Your task to perform on an android device: Clear all items from cart on costco. Search for "bose soundlink" on costco, select the first entry, and add it to the cart. Image 0: 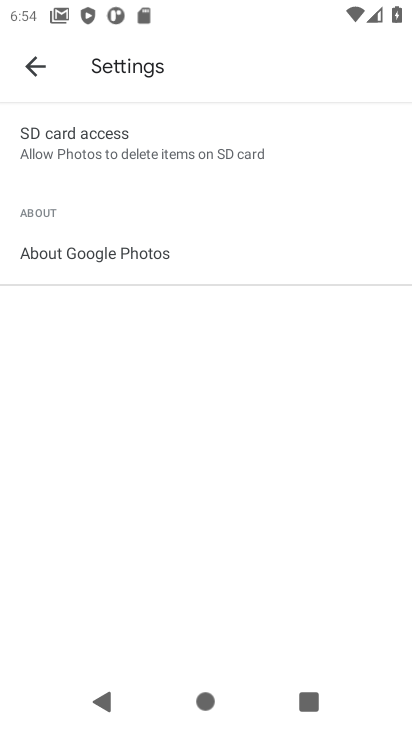
Step 0: press home button
Your task to perform on an android device: Clear all items from cart on costco. Search for "bose soundlink" on costco, select the first entry, and add it to the cart. Image 1: 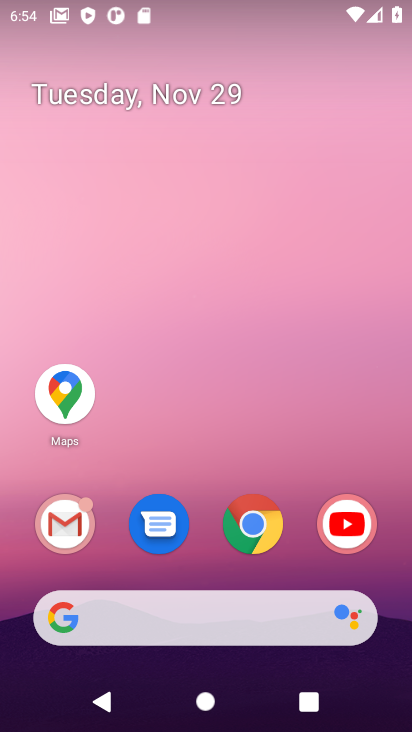
Step 1: click (255, 520)
Your task to perform on an android device: Clear all items from cart on costco. Search for "bose soundlink" on costco, select the first entry, and add it to the cart. Image 2: 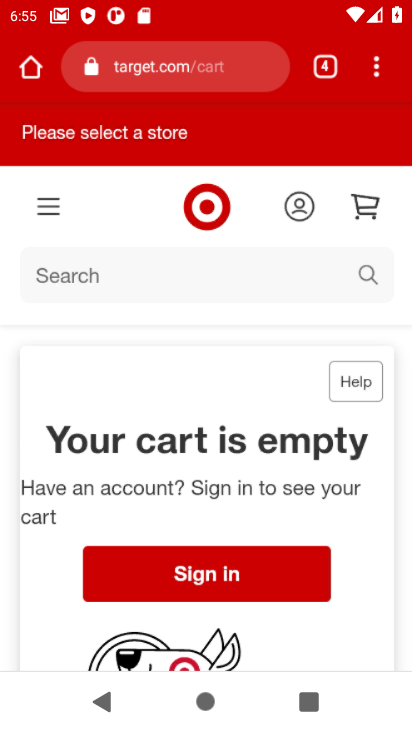
Step 2: click (151, 71)
Your task to perform on an android device: Clear all items from cart on costco. Search for "bose soundlink" on costco, select the first entry, and add it to the cart. Image 3: 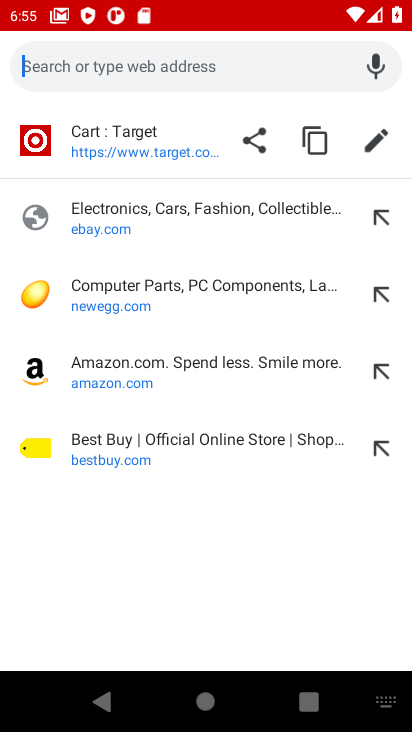
Step 3: type "costco.com"
Your task to perform on an android device: Clear all items from cart on costco. Search for "bose soundlink" on costco, select the first entry, and add it to the cart. Image 4: 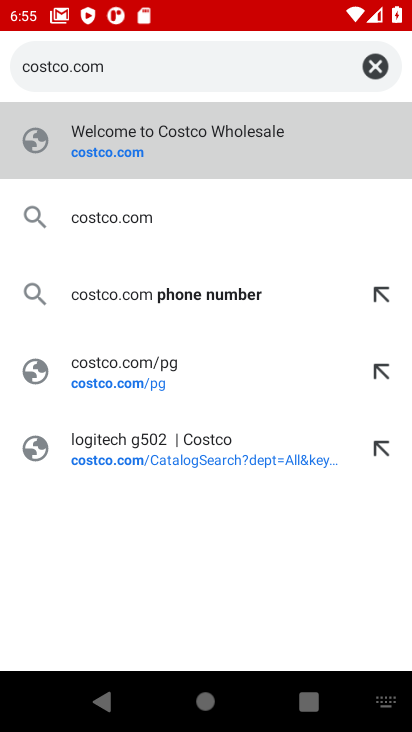
Step 4: click (98, 153)
Your task to perform on an android device: Clear all items from cart on costco. Search for "bose soundlink" on costco, select the first entry, and add it to the cart. Image 5: 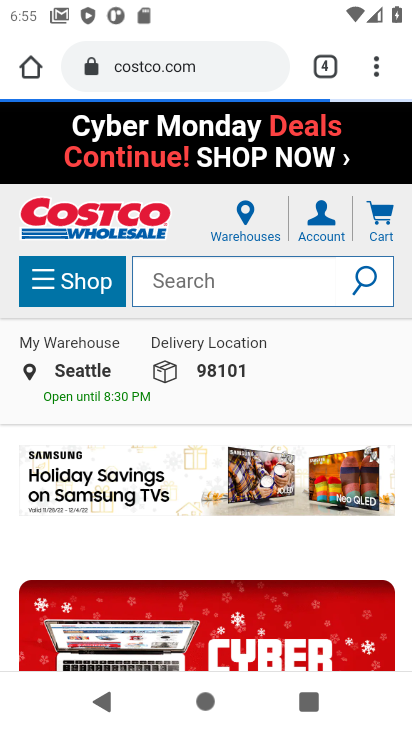
Step 5: click (382, 220)
Your task to perform on an android device: Clear all items from cart on costco. Search for "bose soundlink" on costco, select the first entry, and add it to the cart. Image 6: 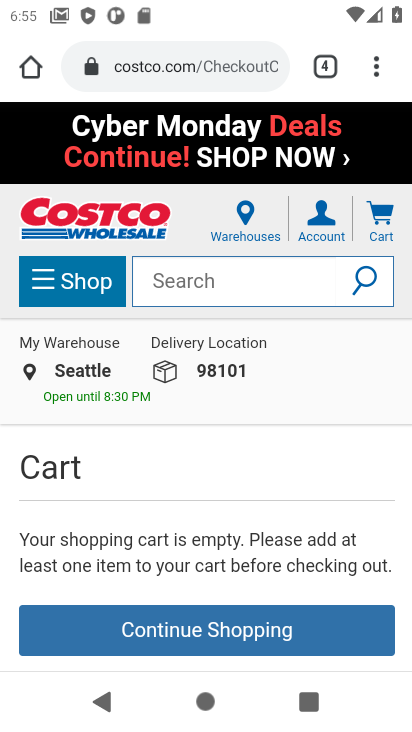
Step 6: click (172, 286)
Your task to perform on an android device: Clear all items from cart on costco. Search for "bose soundlink" on costco, select the first entry, and add it to the cart. Image 7: 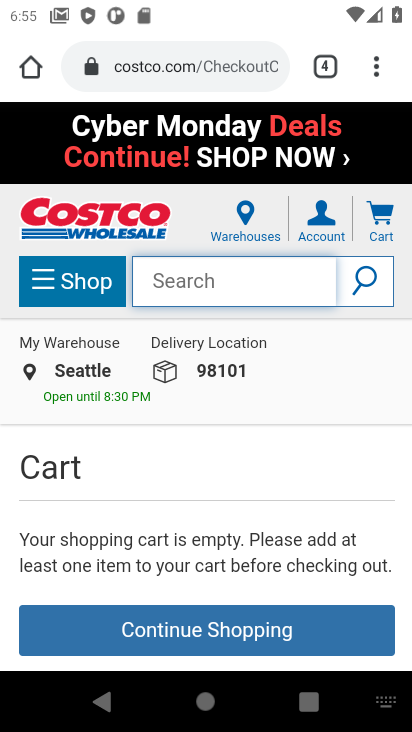
Step 7: type "bose soundlink"
Your task to perform on an android device: Clear all items from cart on costco. Search for "bose soundlink" on costco, select the first entry, and add it to the cart. Image 8: 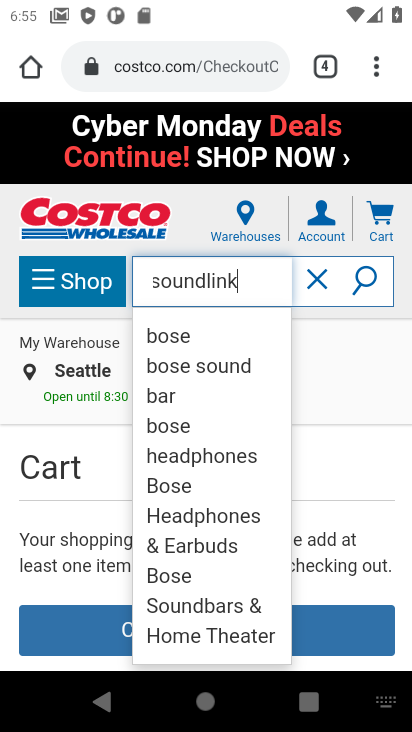
Step 8: click (363, 282)
Your task to perform on an android device: Clear all items from cart on costco. Search for "bose soundlink" on costco, select the first entry, and add it to the cart. Image 9: 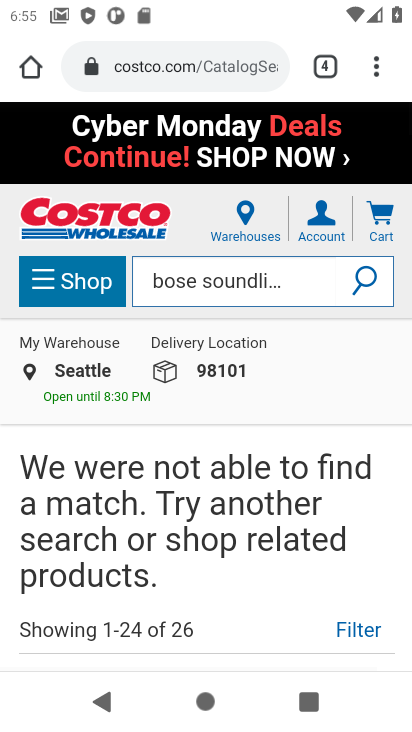
Step 9: task complete